Your task to perform on an android device: open a new tab in the chrome app Image 0: 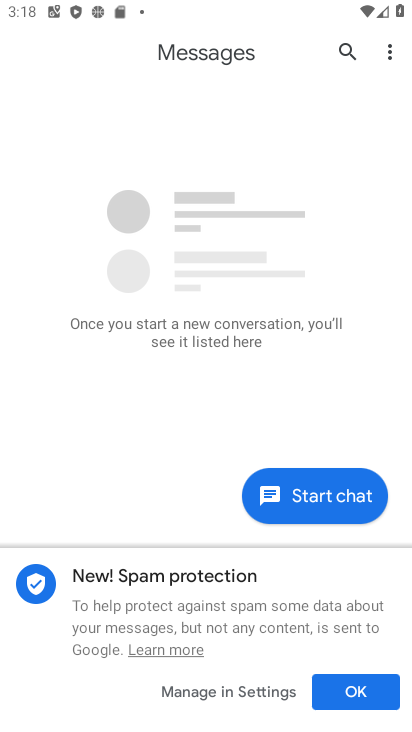
Step 0: press home button
Your task to perform on an android device: open a new tab in the chrome app Image 1: 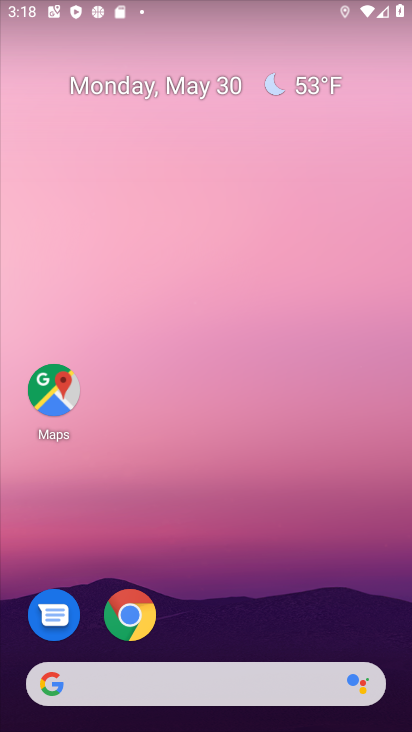
Step 1: click (127, 609)
Your task to perform on an android device: open a new tab in the chrome app Image 2: 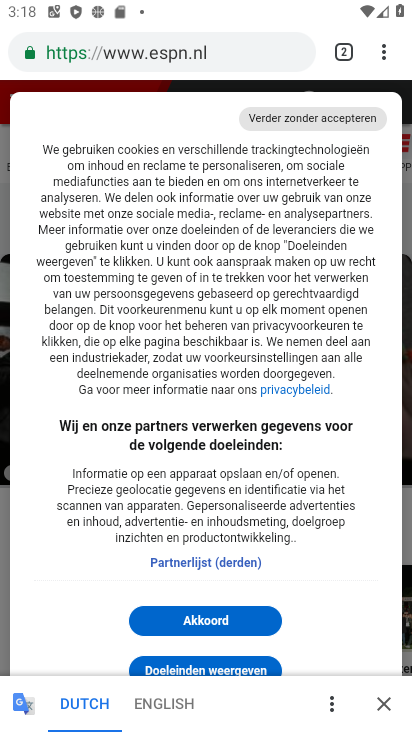
Step 2: click (349, 51)
Your task to perform on an android device: open a new tab in the chrome app Image 3: 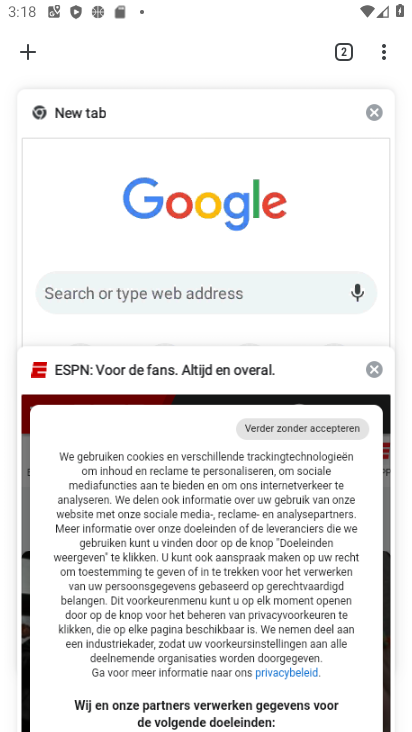
Step 3: click (27, 61)
Your task to perform on an android device: open a new tab in the chrome app Image 4: 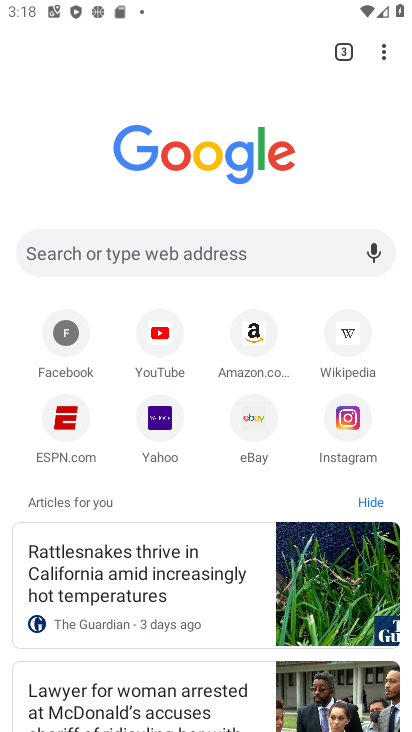
Step 4: task complete